Your task to perform on an android device: Open the phone app and click the voicemail tab. Image 0: 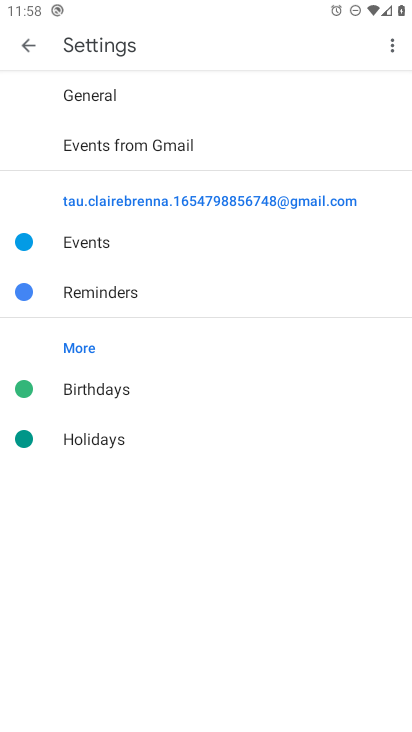
Step 0: press home button
Your task to perform on an android device: Open the phone app and click the voicemail tab. Image 1: 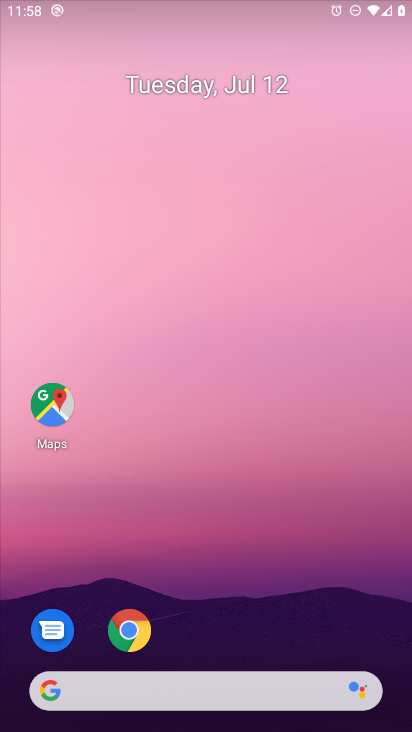
Step 1: drag from (282, 625) to (406, 484)
Your task to perform on an android device: Open the phone app and click the voicemail tab. Image 2: 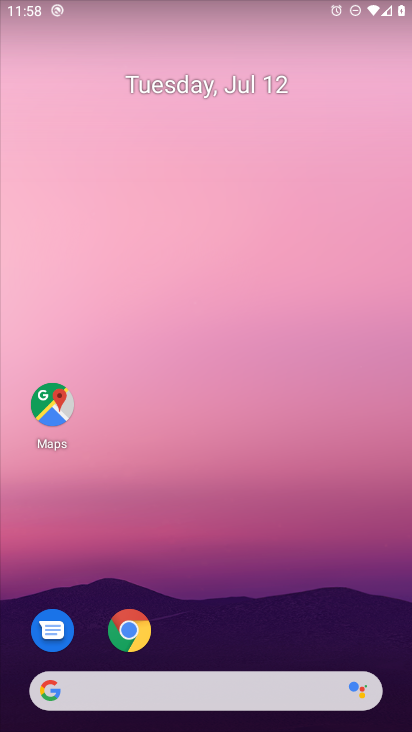
Step 2: click (330, 55)
Your task to perform on an android device: Open the phone app and click the voicemail tab. Image 3: 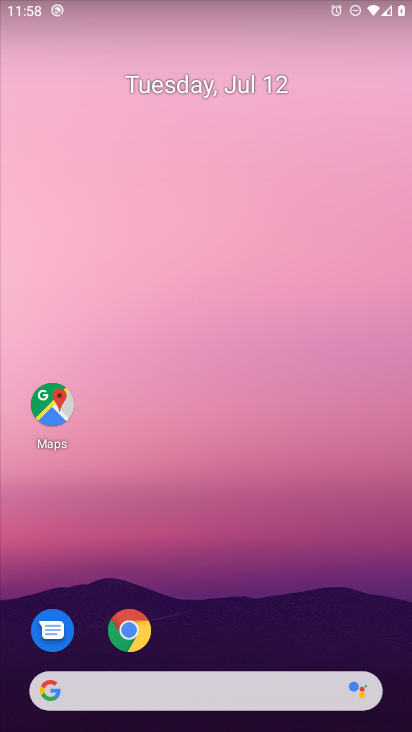
Step 3: drag from (303, 581) to (380, 21)
Your task to perform on an android device: Open the phone app and click the voicemail tab. Image 4: 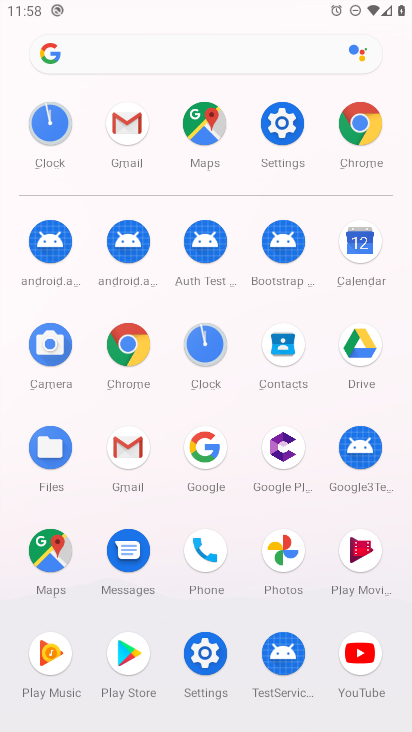
Step 4: click (211, 553)
Your task to perform on an android device: Open the phone app and click the voicemail tab. Image 5: 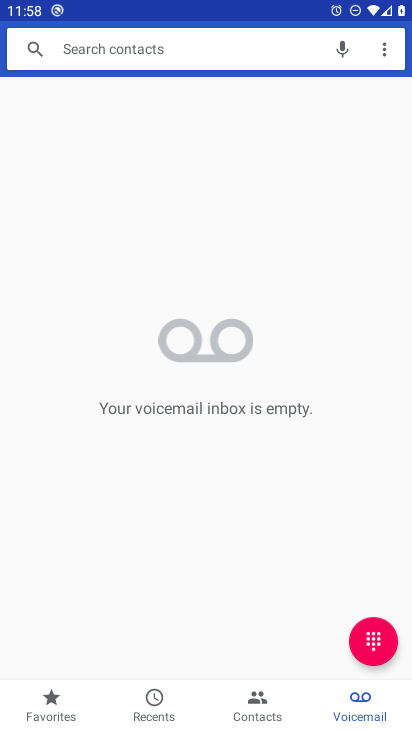
Step 5: click (347, 697)
Your task to perform on an android device: Open the phone app and click the voicemail tab. Image 6: 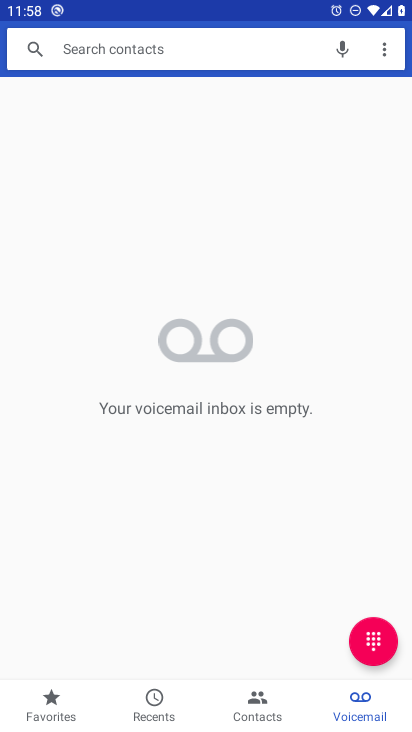
Step 6: click (351, 700)
Your task to perform on an android device: Open the phone app and click the voicemail tab. Image 7: 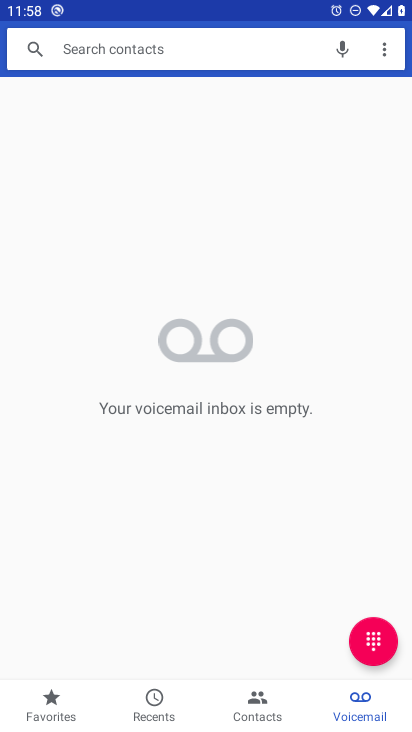
Step 7: task complete